Your task to perform on an android device: Open Google Chrome Image 0: 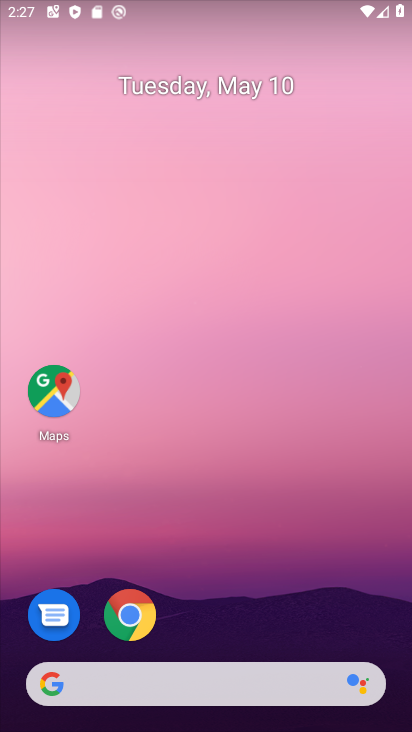
Step 0: drag from (224, 623) to (246, 116)
Your task to perform on an android device: Open Google Chrome Image 1: 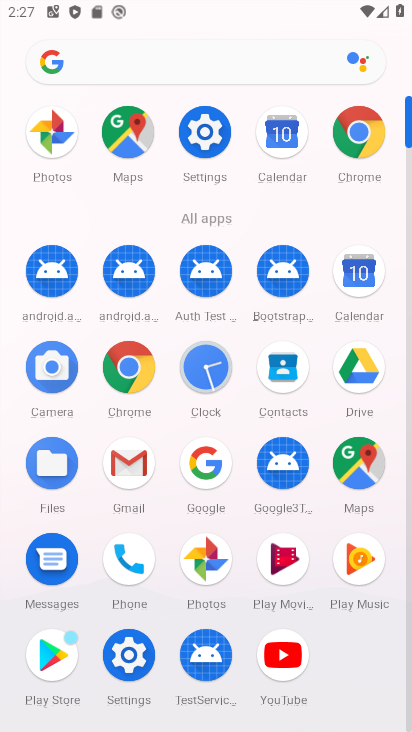
Step 1: click (131, 355)
Your task to perform on an android device: Open Google Chrome Image 2: 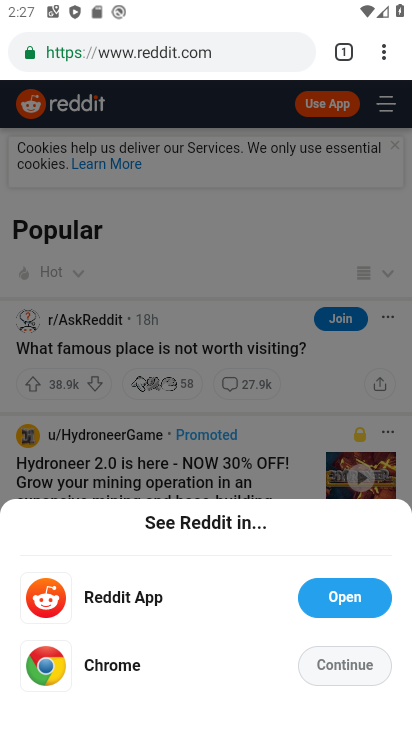
Step 2: task complete